Your task to perform on an android device: check out phone information Image 0: 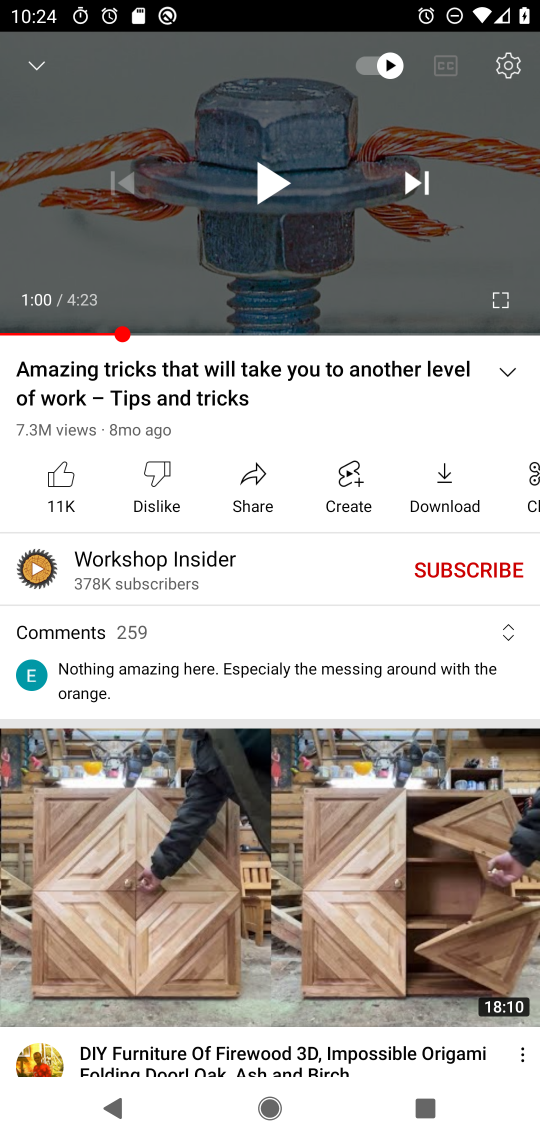
Step 0: press home button
Your task to perform on an android device: check out phone information Image 1: 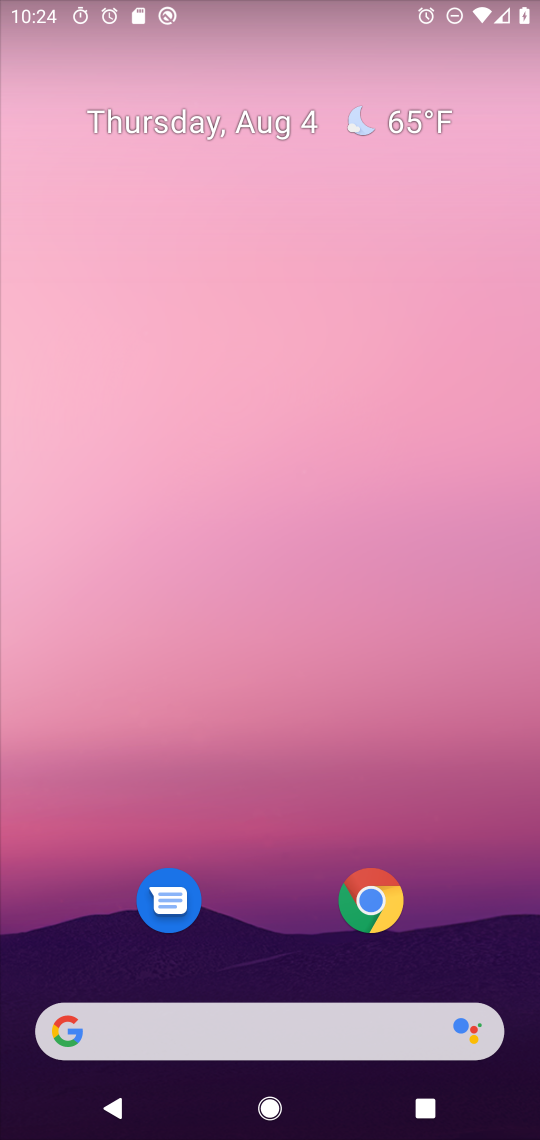
Step 1: drag from (259, 1006) to (232, 340)
Your task to perform on an android device: check out phone information Image 2: 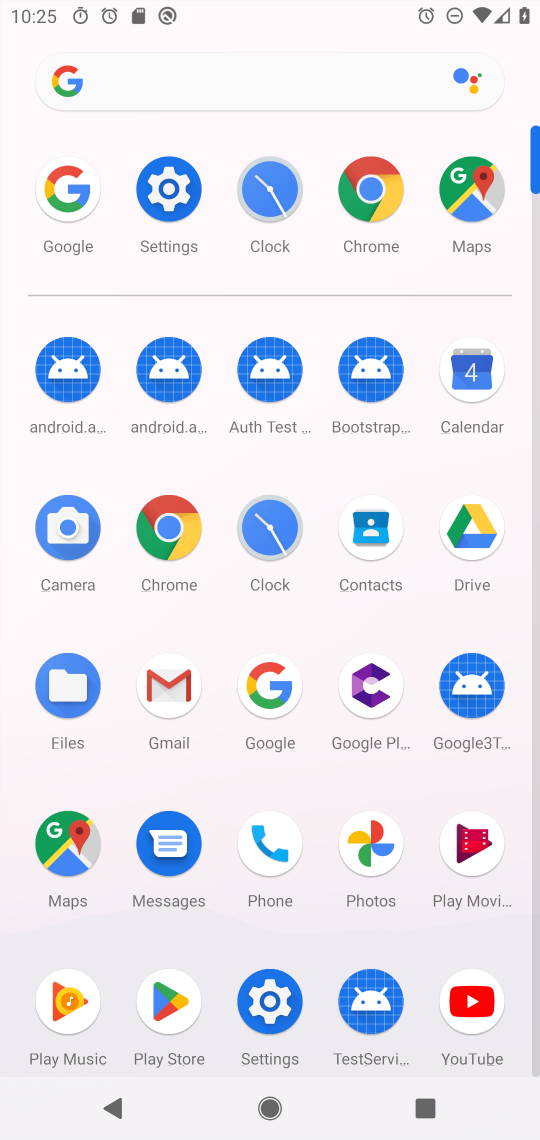
Step 2: click (272, 1003)
Your task to perform on an android device: check out phone information Image 3: 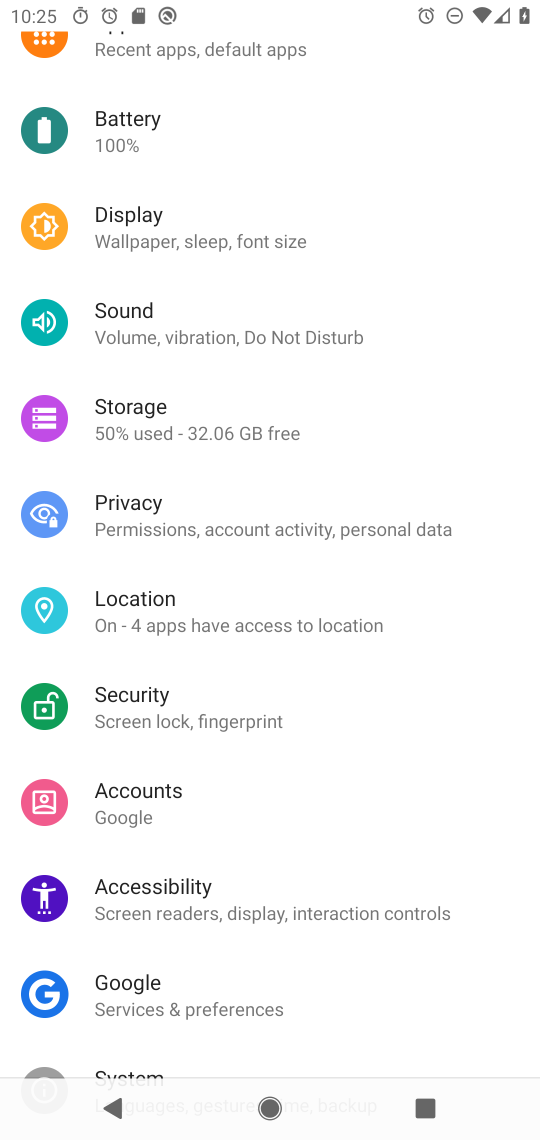
Step 3: drag from (229, 949) to (223, 587)
Your task to perform on an android device: check out phone information Image 4: 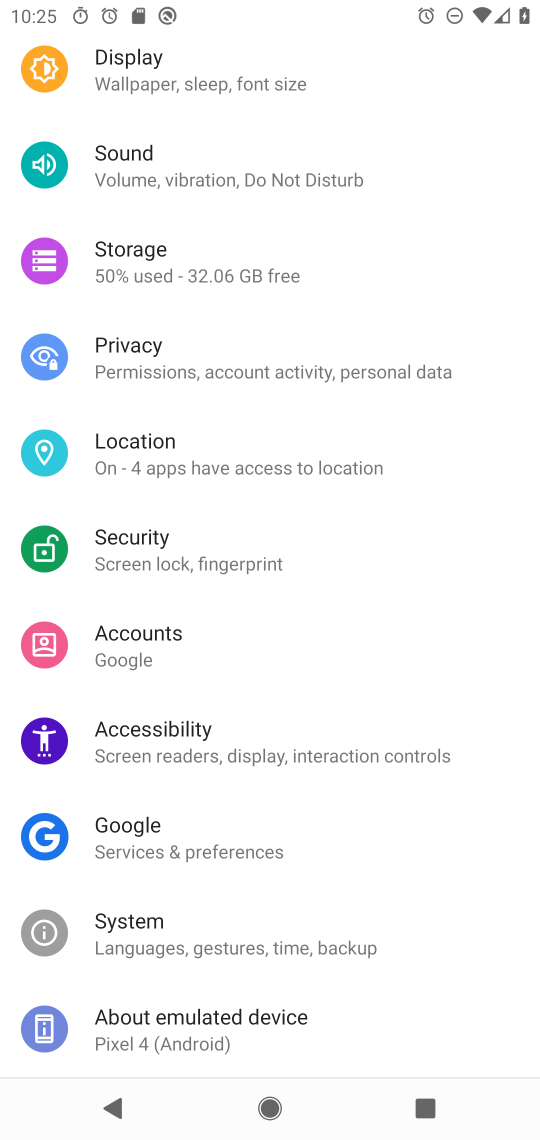
Step 4: click (162, 1012)
Your task to perform on an android device: check out phone information Image 5: 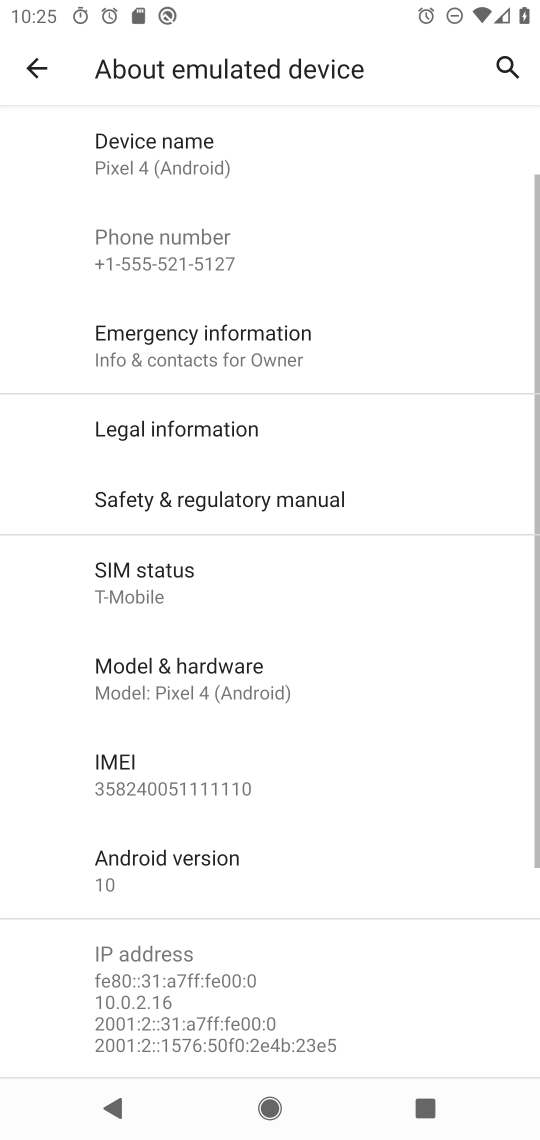
Step 5: task complete